Your task to perform on an android device: Find coffee shops on Maps Image 0: 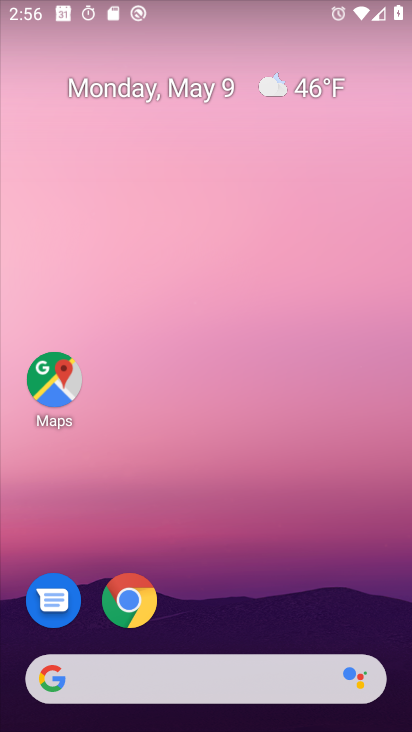
Step 0: click (53, 369)
Your task to perform on an android device: Find coffee shops on Maps Image 1: 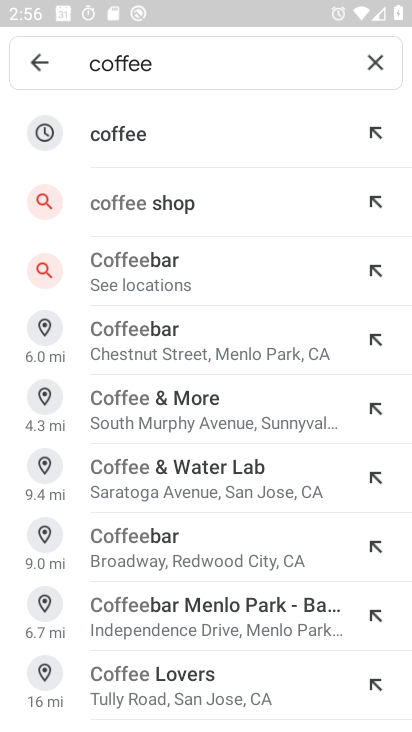
Step 1: click (180, 210)
Your task to perform on an android device: Find coffee shops on Maps Image 2: 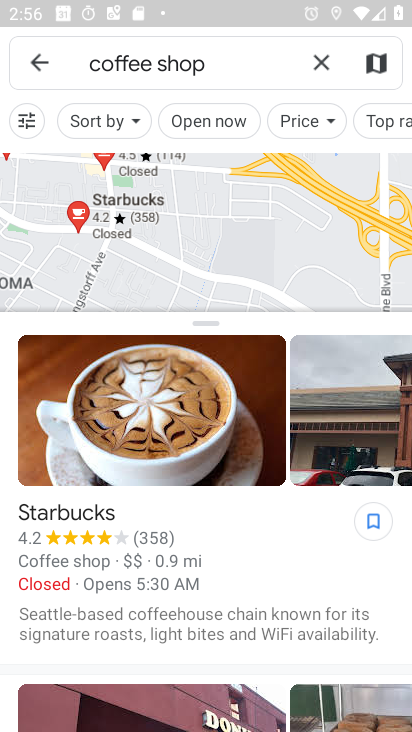
Step 2: task complete